Your task to perform on an android device: Search for the new nike shoes on Target Image 0: 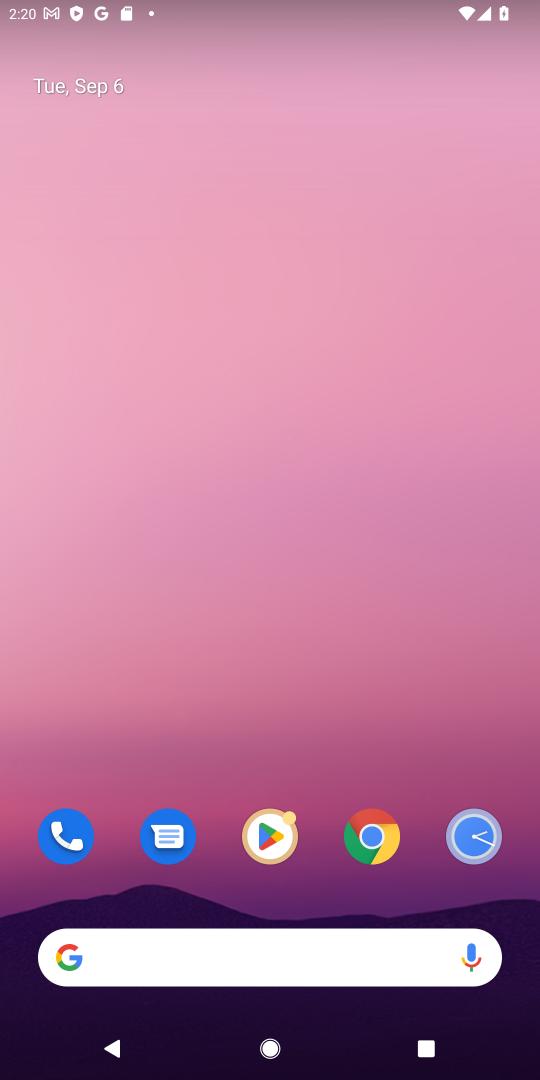
Step 0: click (261, 952)
Your task to perform on an android device: Search for the new nike shoes on Target Image 1: 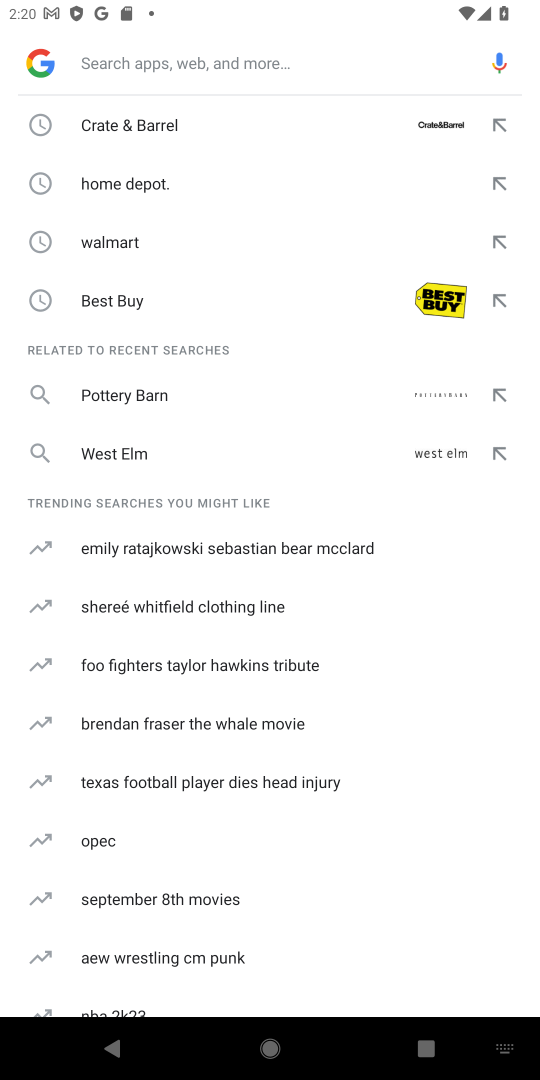
Step 1: type "target"
Your task to perform on an android device: Search for the new nike shoes on Target Image 2: 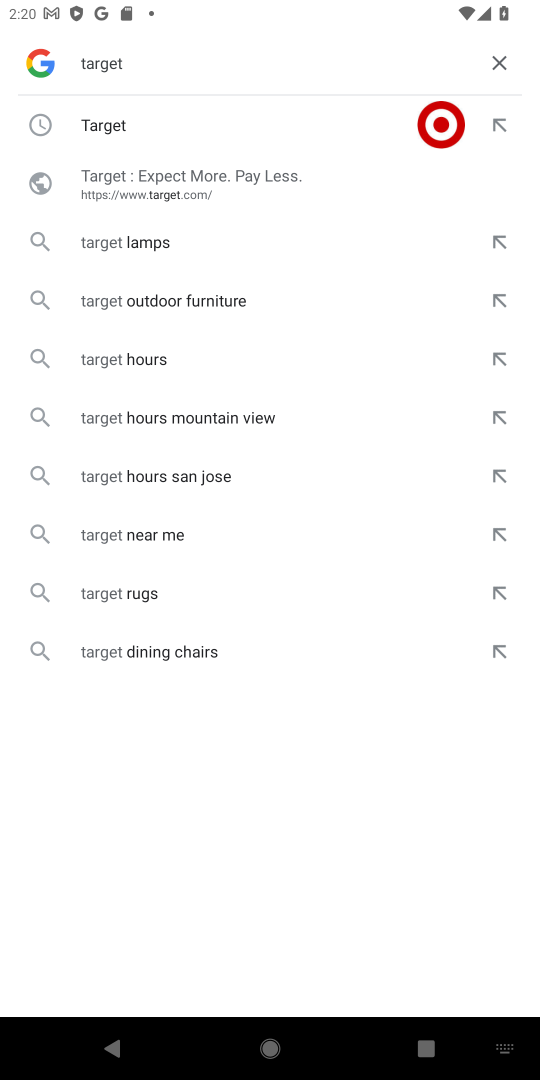
Step 2: click (101, 123)
Your task to perform on an android device: Search for the new nike shoes on Target Image 3: 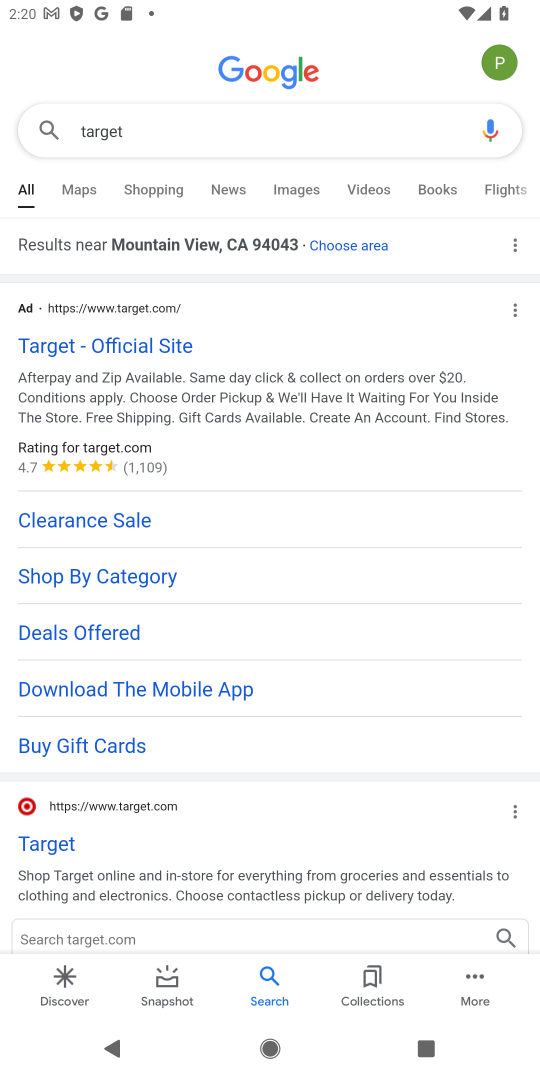
Step 3: click (83, 343)
Your task to perform on an android device: Search for the new nike shoes on Target Image 4: 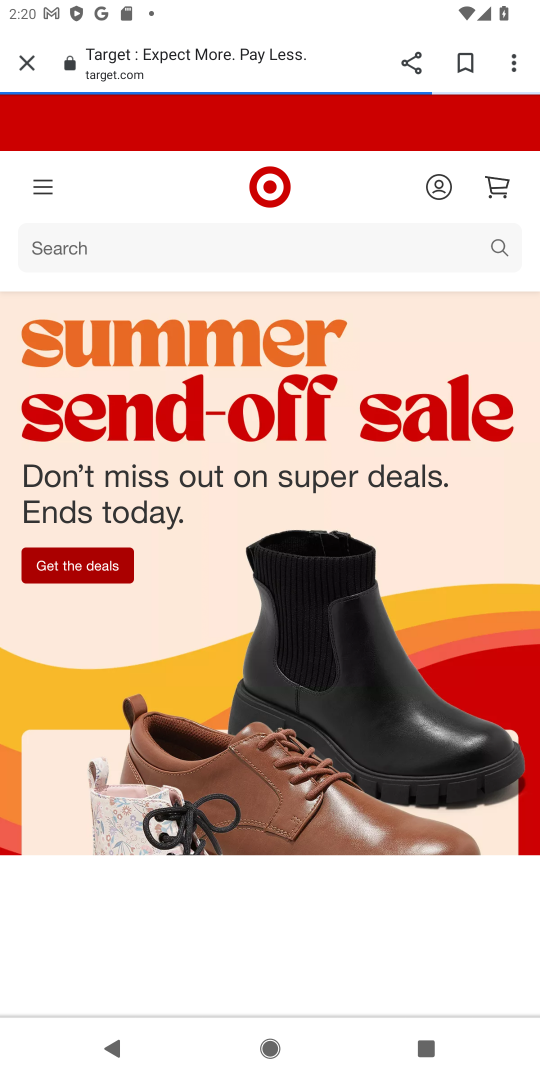
Step 4: click (173, 235)
Your task to perform on an android device: Search for the new nike shoes on Target Image 5: 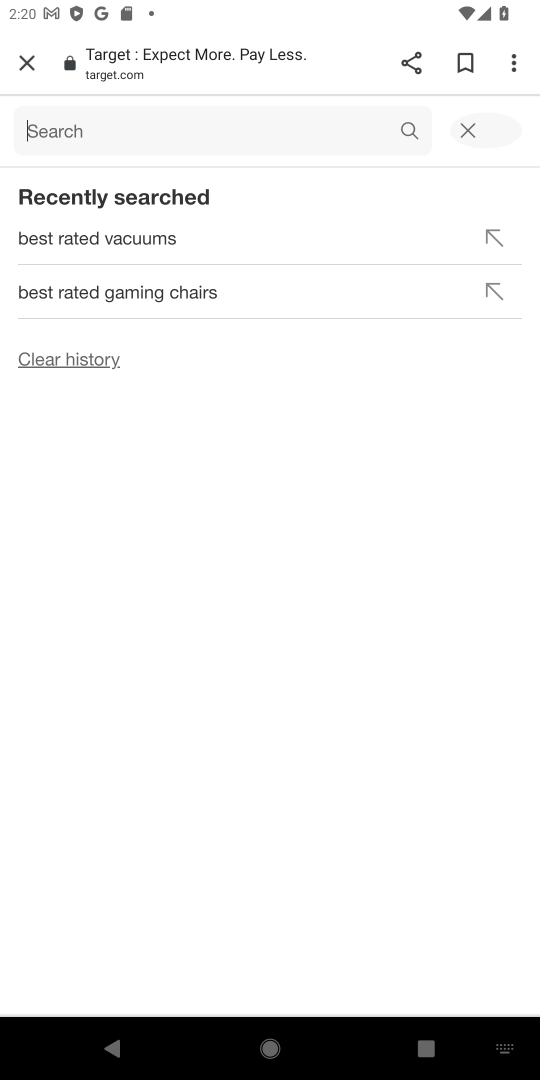
Step 5: type "new nike shoes"
Your task to perform on an android device: Search for the new nike shoes on Target Image 6: 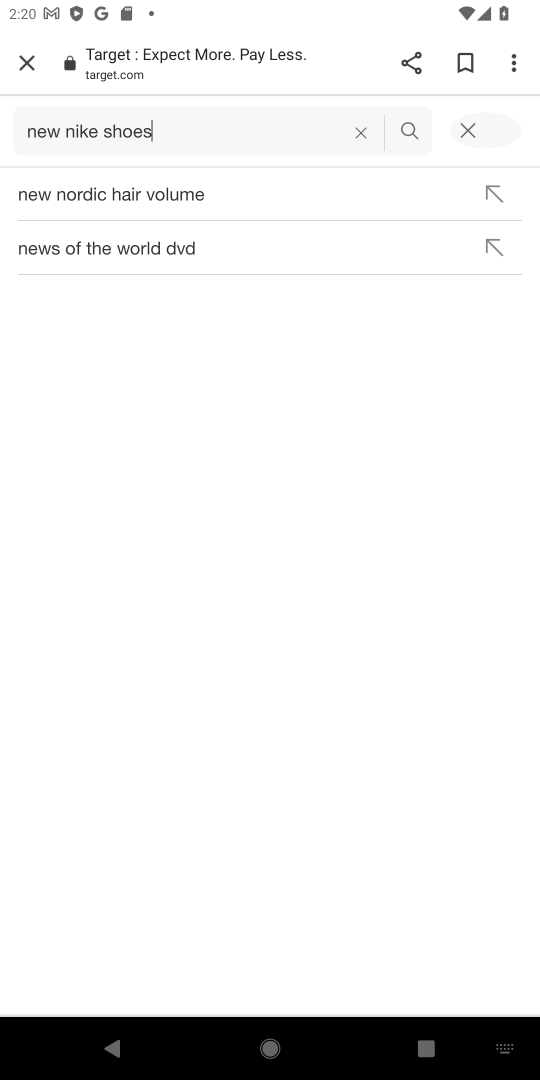
Step 6: click (413, 122)
Your task to perform on an android device: Search for the new nike shoes on Target Image 7: 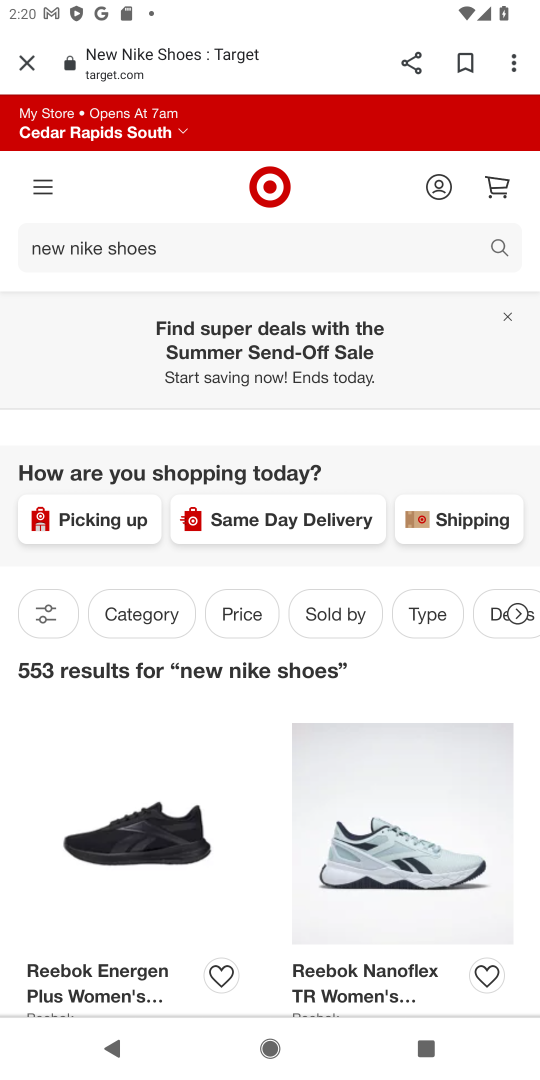
Step 7: task complete